Your task to perform on an android device: When is my next meeting? Image 0: 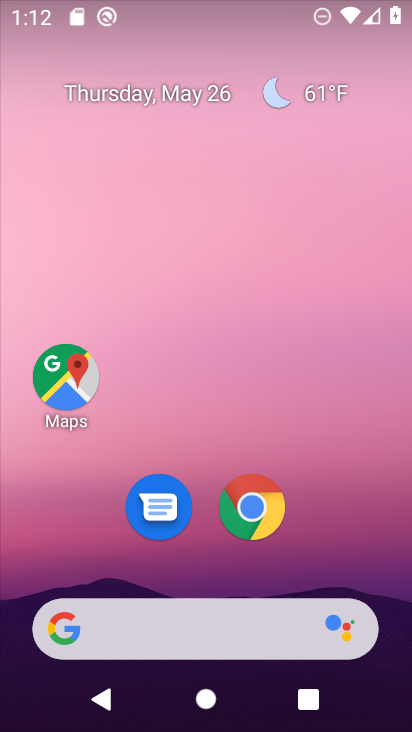
Step 0: drag from (379, 543) to (307, 112)
Your task to perform on an android device: When is my next meeting? Image 1: 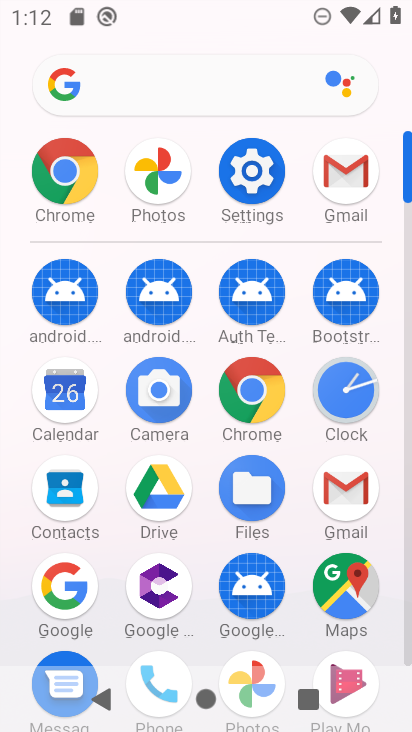
Step 1: click (243, 152)
Your task to perform on an android device: When is my next meeting? Image 2: 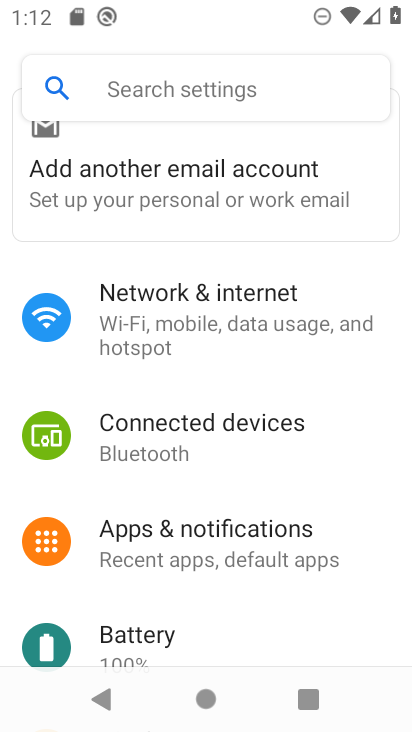
Step 2: press home button
Your task to perform on an android device: When is my next meeting? Image 3: 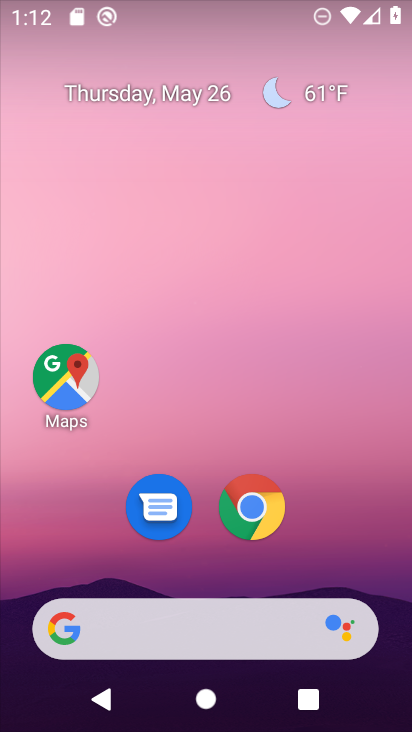
Step 3: drag from (360, 564) to (362, 198)
Your task to perform on an android device: When is my next meeting? Image 4: 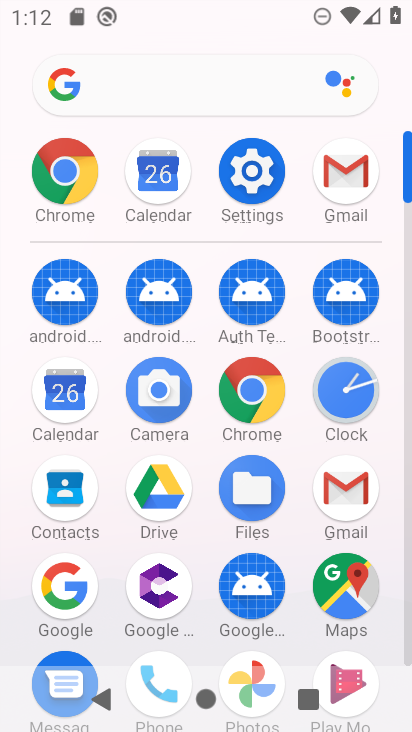
Step 4: click (49, 417)
Your task to perform on an android device: When is my next meeting? Image 5: 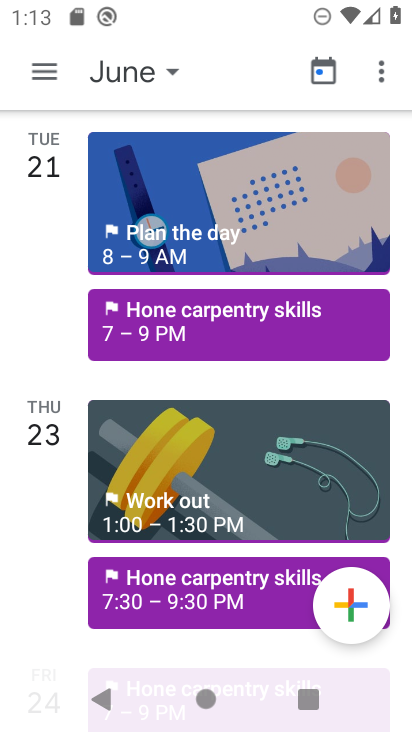
Step 5: task complete